Your task to perform on an android device: Open privacy settings Image 0: 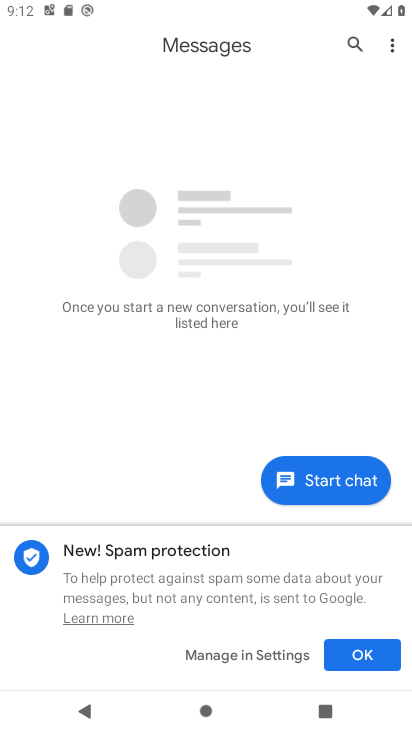
Step 0: press home button
Your task to perform on an android device: Open privacy settings Image 1: 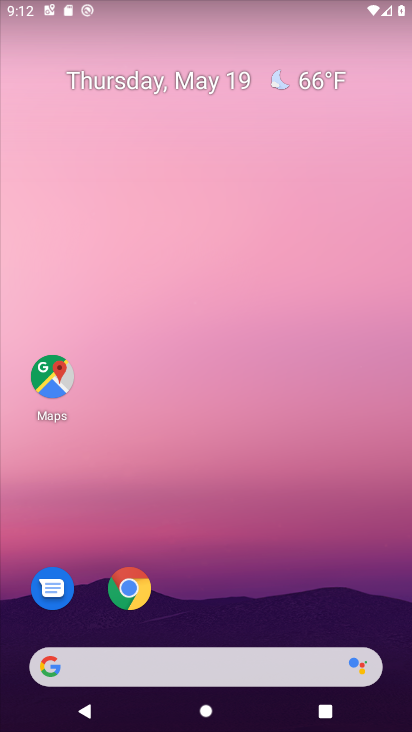
Step 1: drag from (369, 603) to (366, 180)
Your task to perform on an android device: Open privacy settings Image 2: 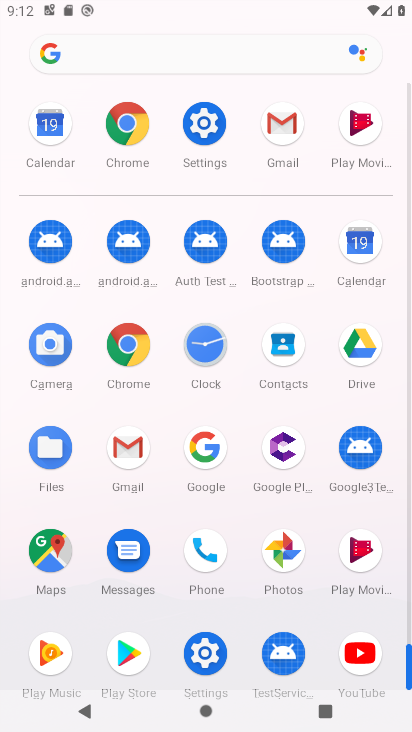
Step 2: click (204, 654)
Your task to perform on an android device: Open privacy settings Image 3: 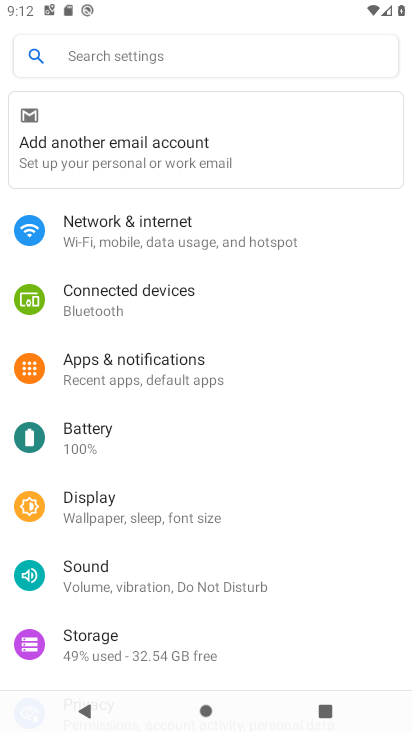
Step 3: drag from (364, 589) to (348, 470)
Your task to perform on an android device: Open privacy settings Image 4: 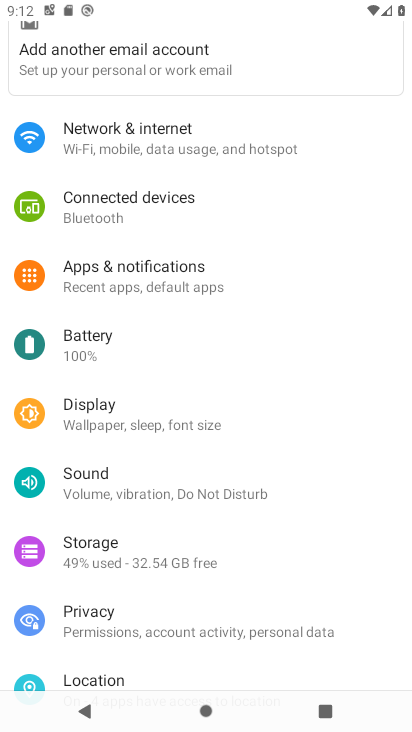
Step 4: drag from (352, 601) to (343, 468)
Your task to perform on an android device: Open privacy settings Image 5: 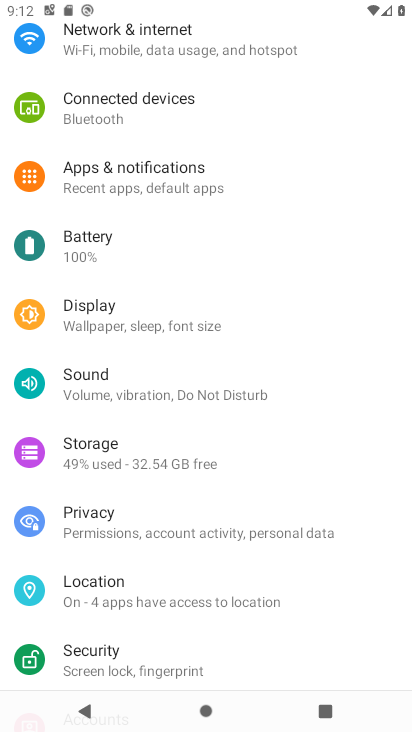
Step 5: drag from (381, 615) to (373, 486)
Your task to perform on an android device: Open privacy settings Image 6: 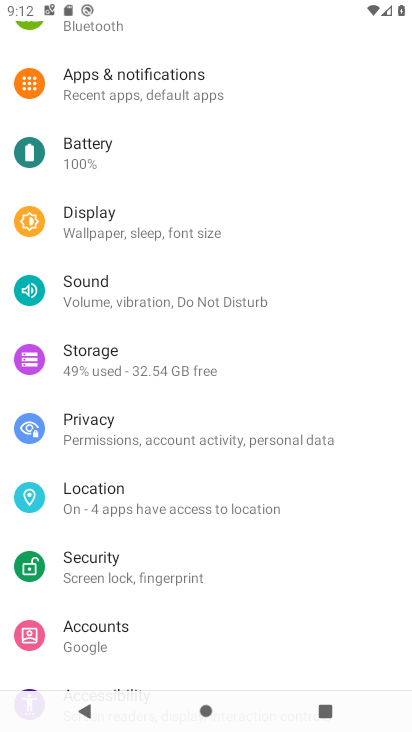
Step 6: drag from (343, 615) to (334, 459)
Your task to perform on an android device: Open privacy settings Image 7: 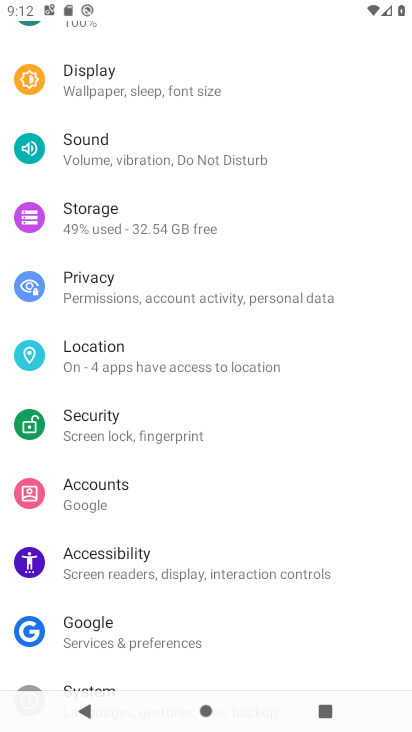
Step 7: drag from (376, 606) to (354, 415)
Your task to perform on an android device: Open privacy settings Image 8: 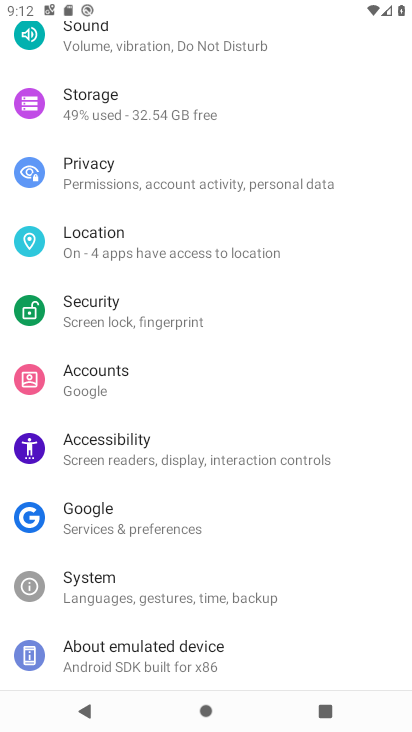
Step 8: drag from (342, 608) to (352, 419)
Your task to perform on an android device: Open privacy settings Image 9: 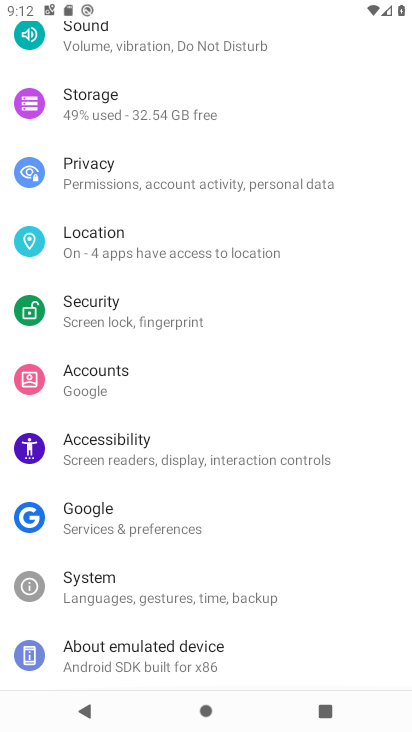
Step 9: drag from (337, 334) to (337, 446)
Your task to perform on an android device: Open privacy settings Image 10: 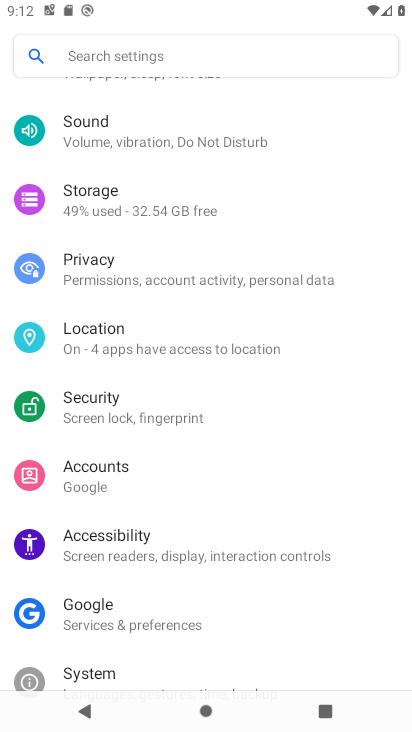
Step 10: drag from (342, 326) to (346, 463)
Your task to perform on an android device: Open privacy settings Image 11: 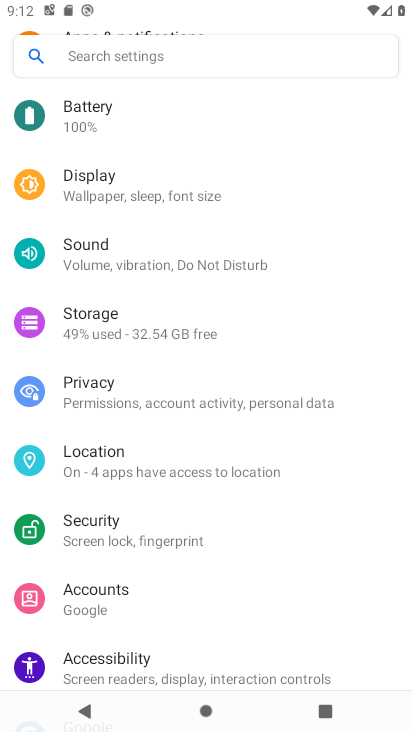
Step 11: click (306, 399)
Your task to perform on an android device: Open privacy settings Image 12: 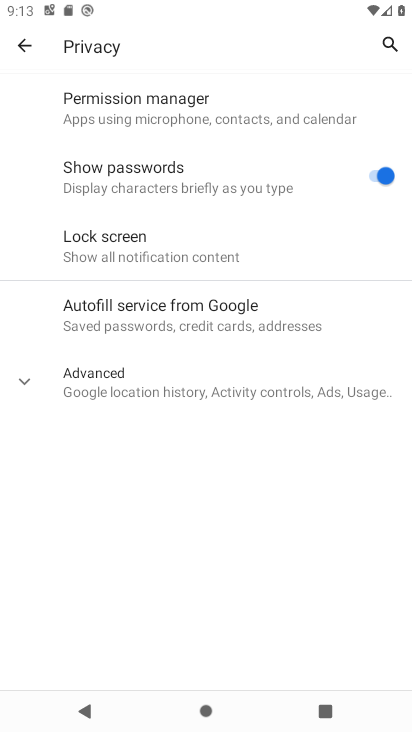
Step 12: click (293, 384)
Your task to perform on an android device: Open privacy settings Image 13: 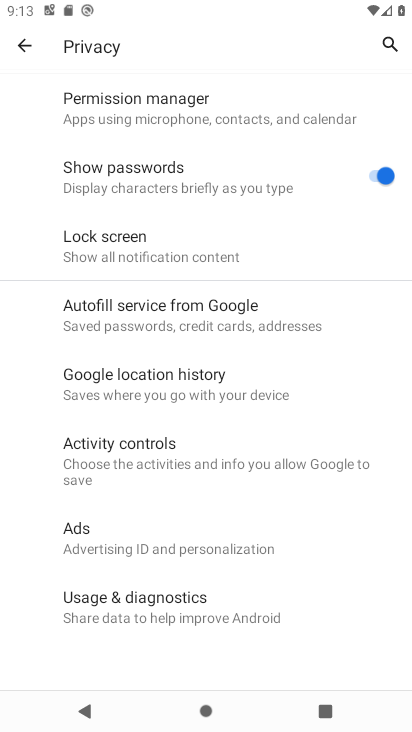
Step 13: task complete